Your task to perform on an android device: manage bookmarks in the chrome app Image 0: 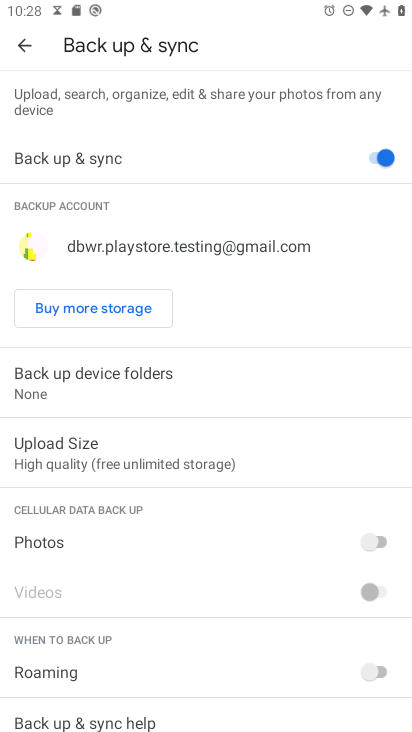
Step 0: press home button
Your task to perform on an android device: manage bookmarks in the chrome app Image 1: 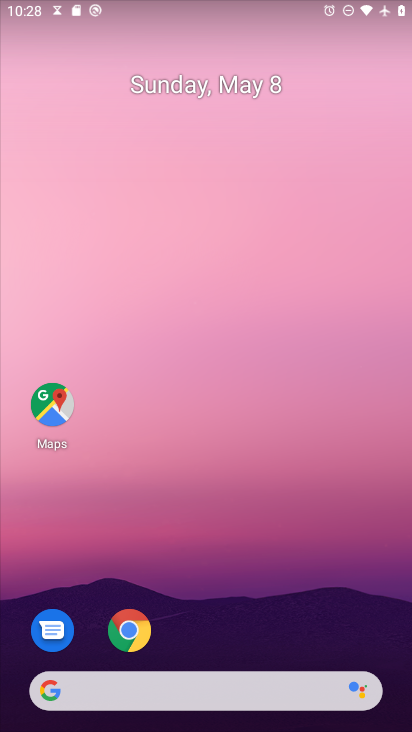
Step 1: click (125, 627)
Your task to perform on an android device: manage bookmarks in the chrome app Image 2: 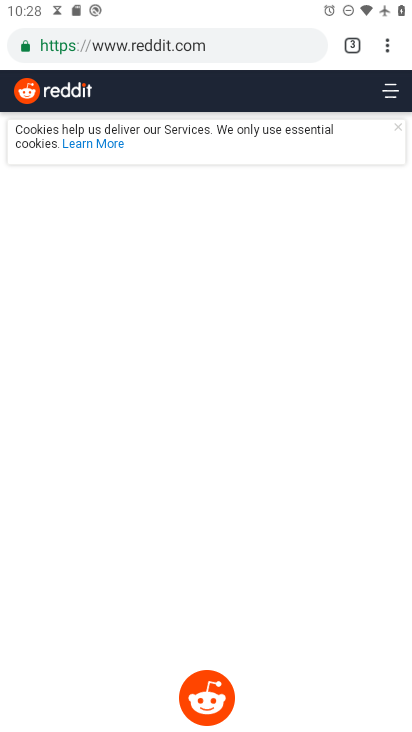
Step 2: drag from (387, 45) to (265, 172)
Your task to perform on an android device: manage bookmarks in the chrome app Image 3: 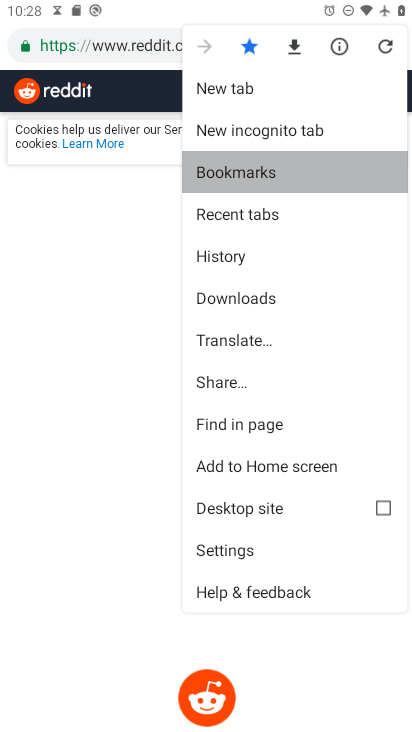
Step 3: click (265, 172)
Your task to perform on an android device: manage bookmarks in the chrome app Image 4: 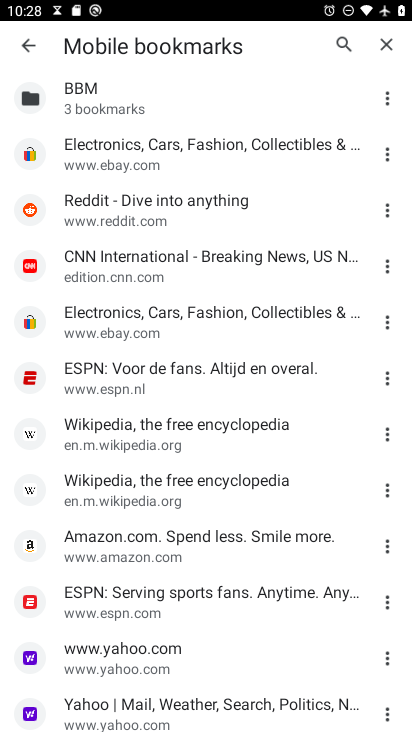
Step 4: click (391, 159)
Your task to perform on an android device: manage bookmarks in the chrome app Image 5: 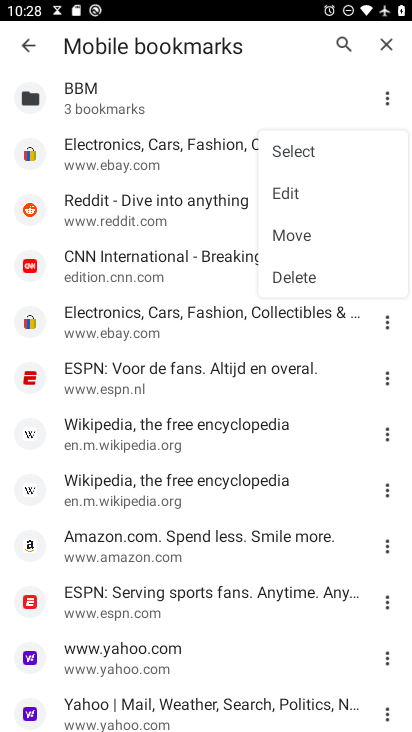
Step 5: click (300, 236)
Your task to perform on an android device: manage bookmarks in the chrome app Image 6: 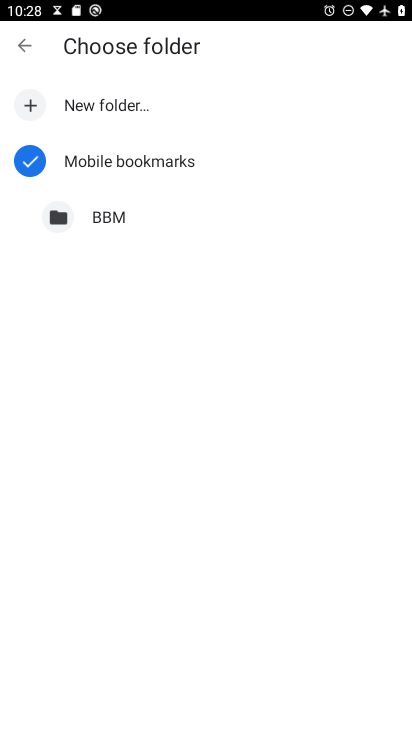
Step 6: click (103, 213)
Your task to perform on an android device: manage bookmarks in the chrome app Image 7: 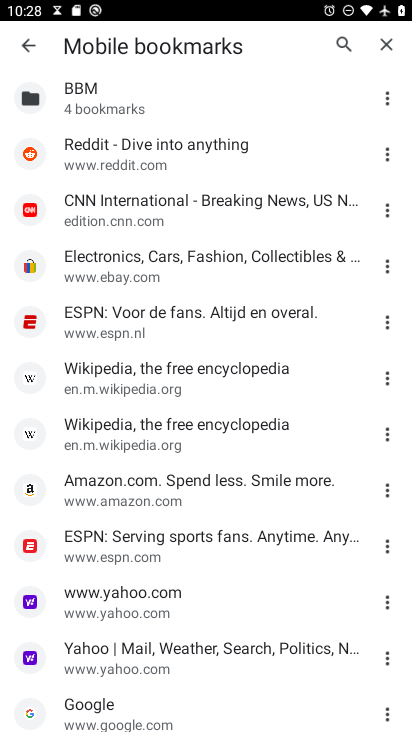
Step 7: task complete